Your task to perform on an android device: Open Youtube and go to the subscriptions tab Image 0: 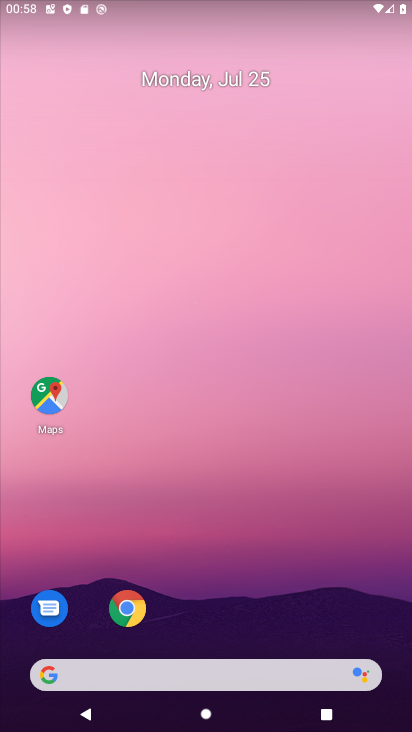
Step 0: drag from (228, 639) to (185, 16)
Your task to perform on an android device: Open Youtube and go to the subscriptions tab Image 1: 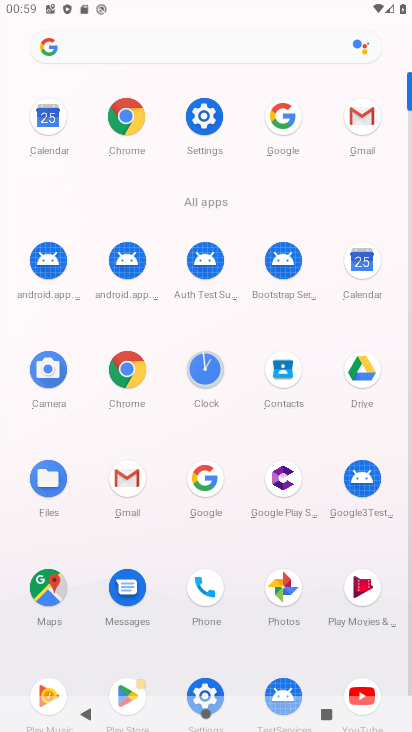
Step 1: click (371, 693)
Your task to perform on an android device: Open Youtube and go to the subscriptions tab Image 2: 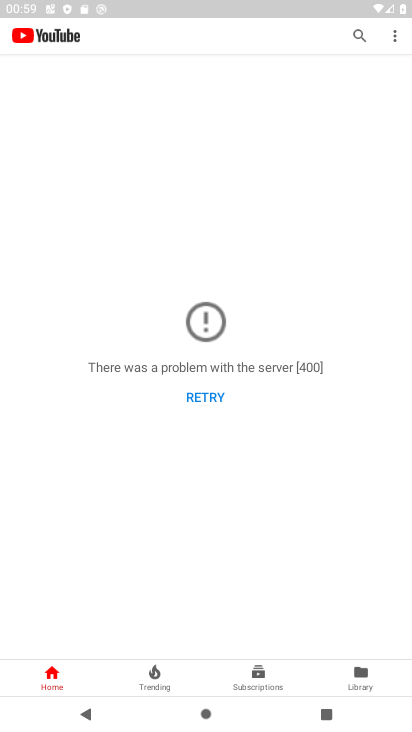
Step 2: click (264, 676)
Your task to perform on an android device: Open Youtube and go to the subscriptions tab Image 3: 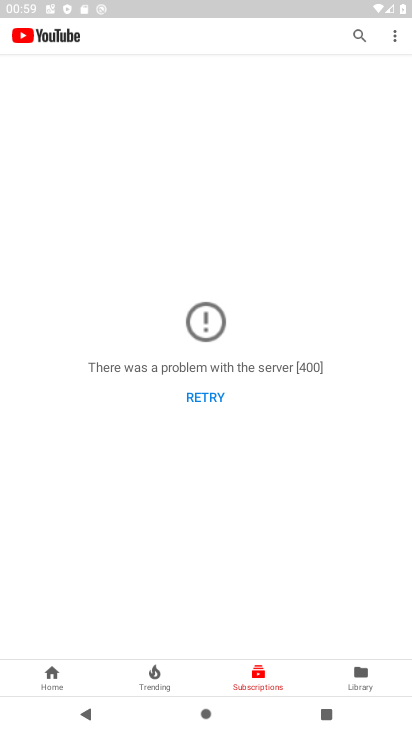
Step 3: click (194, 395)
Your task to perform on an android device: Open Youtube and go to the subscriptions tab Image 4: 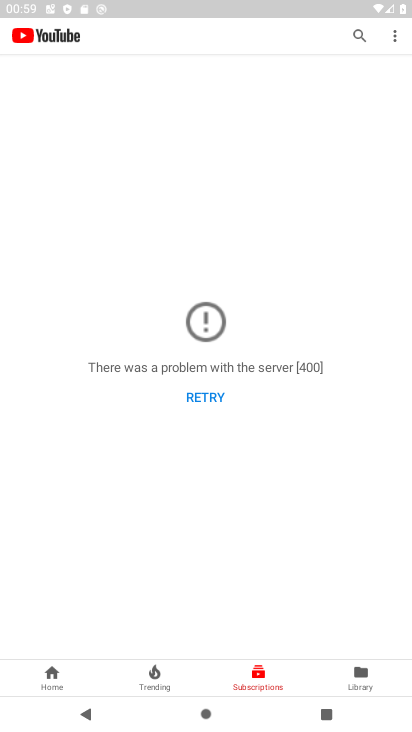
Step 4: task complete